Your task to perform on an android device: move an email to a new category in the gmail app Image 0: 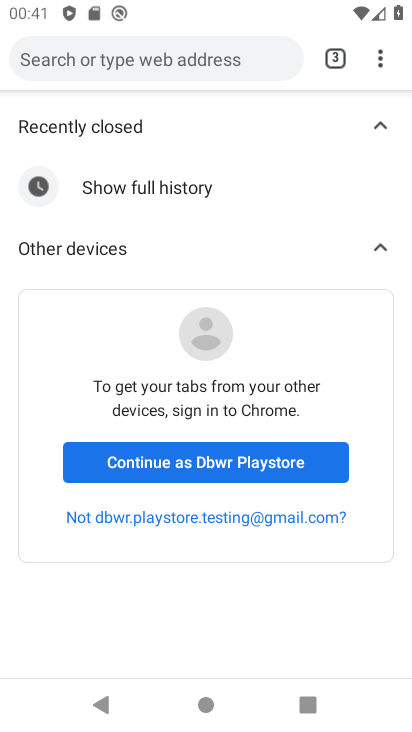
Step 0: press home button
Your task to perform on an android device: move an email to a new category in the gmail app Image 1: 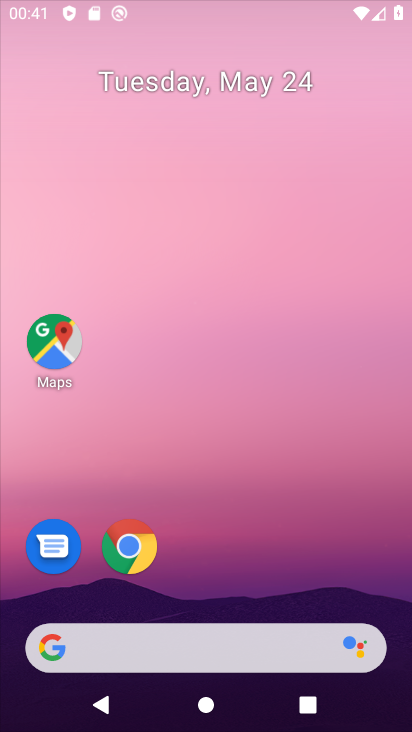
Step 1: drag from (221, 646) to (219, 63)
Your task to perform on an android device: move an email to a new category in the gmail app Image 2: 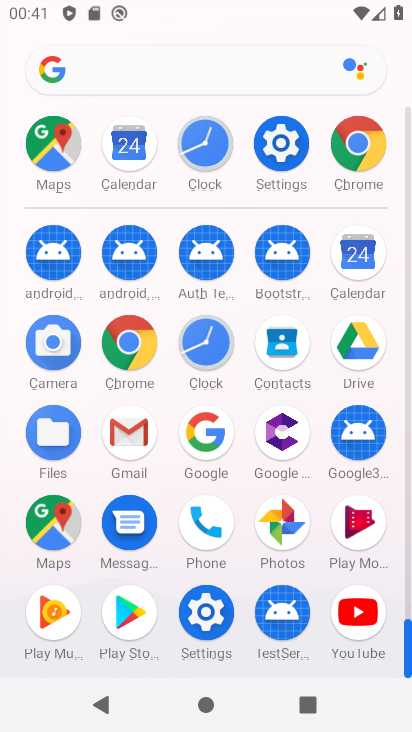
Step 2: click (128, 439)
Your task to perform on an android device: move an email to a new category in the gmail app Image 3: 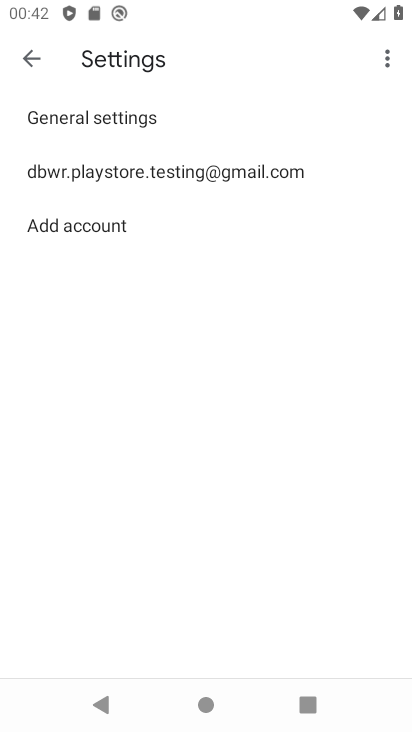
Step 3: press back button
Your task to perform on an android device: move an email to a new category in the gmail app Image 4: 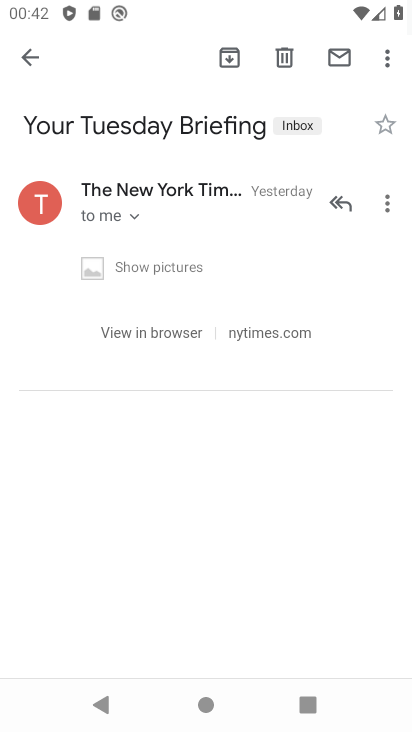
Step 4: press back button
Your task to perform on an android device: move an email to a new category in the gmail app Image 5: 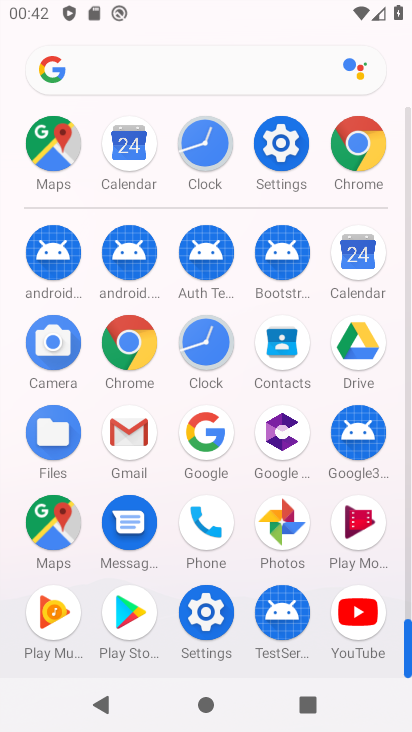
Step 5: click (116, 439)
Your task to perform on an android device: move an email to a new category in the gmail app Image 6: 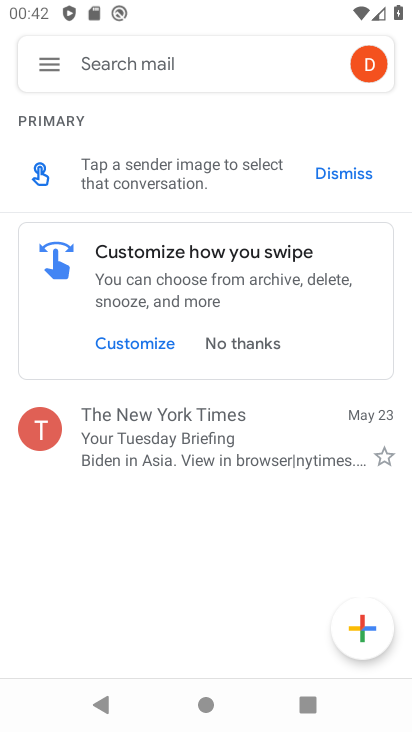
Step 6: click (223, 418)
Your task to perform on an android device: move an email to a new category in the gmail app Image 7: 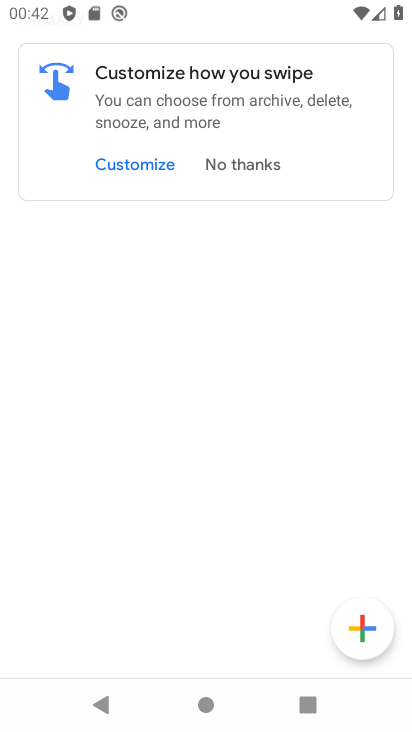
Step 7: task complete